Your task to perform on an android device: Is it going to rain tomorrow? Image 0: 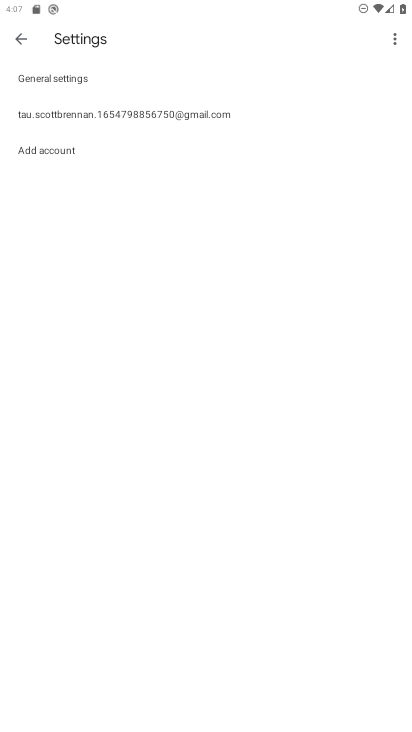
Step 0: press home button
Your task to perform on an android device: Is it going to rain tomorrow? Image 1: 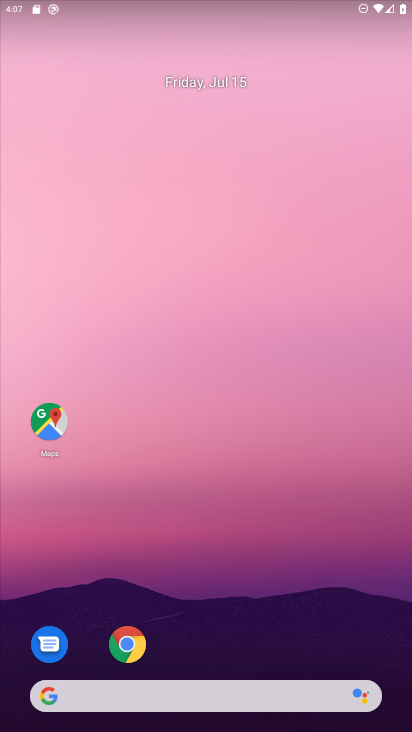
Step 1: drag from (47, 491) to (267, 67)
Your task to perform on an android device: Is it going to rain tomorrow? Image 2: 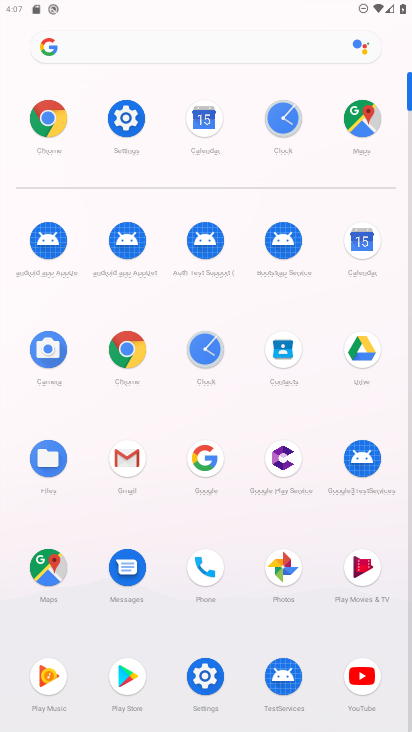
Step 2: press home button
Your task to perform on an android device: Is it going to rain tomorrow? Image 3: 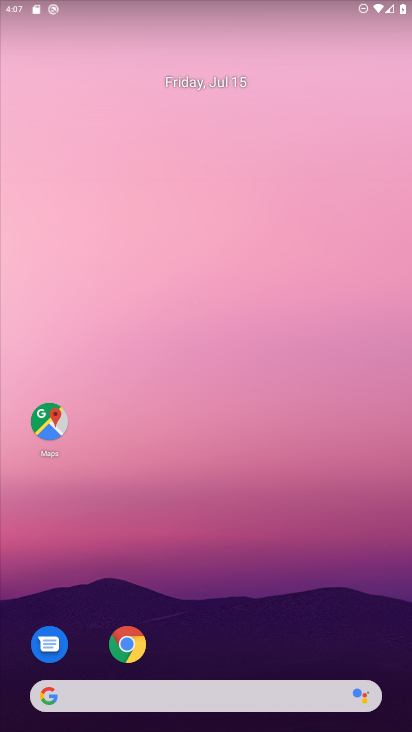
Step 3: click (159, 701)
Your task to perform on an android device: Is it going to rain tomorrow? Image 4: 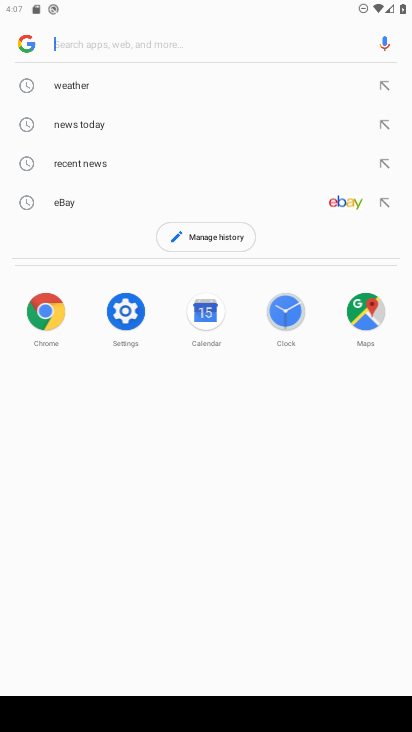
Step 4: click (77, 81)
Your task to perform on an android device: Is it going to rain tomorrow? Image 5: 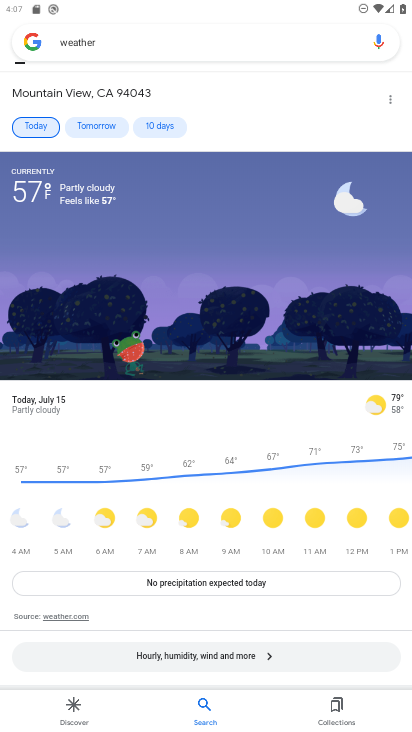
Step 5: click (83, 134)
Your task to perform on an android device: Is it going to rain tomorrow? Image 6: 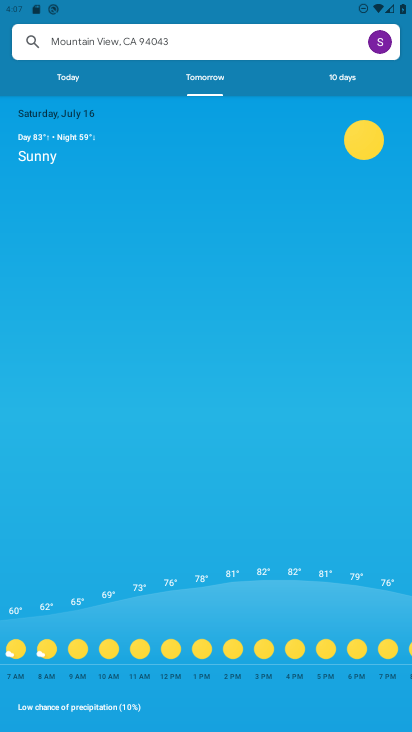
Step 6: task complete